Your task to perform on an android device: Go to network settings Image 0: 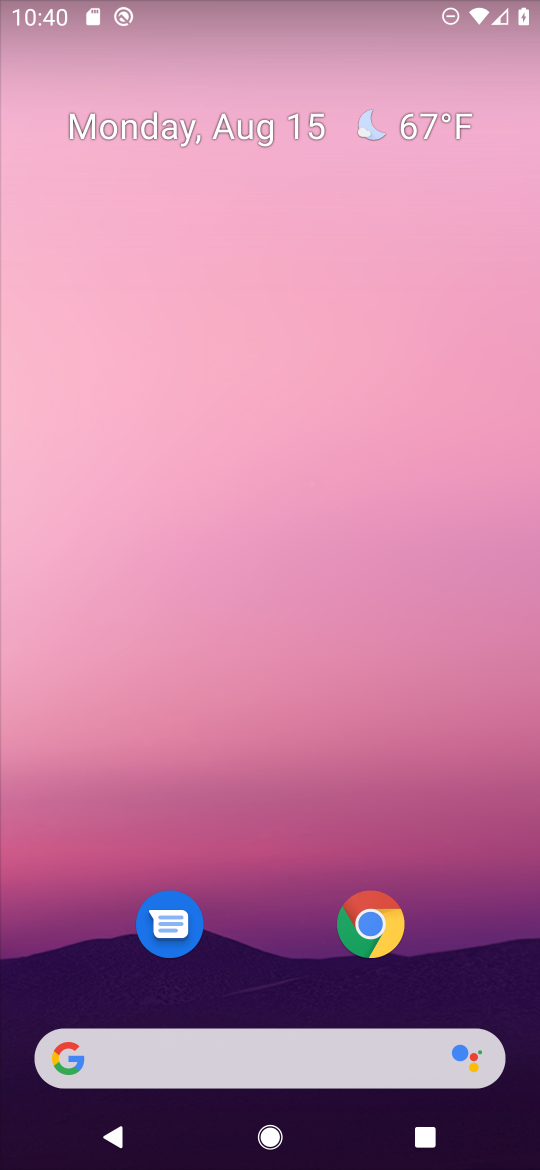
Step 0: drag from (490, 988) to (410, 103)
Your task to perform on an android device: Go to network settings Image 1: 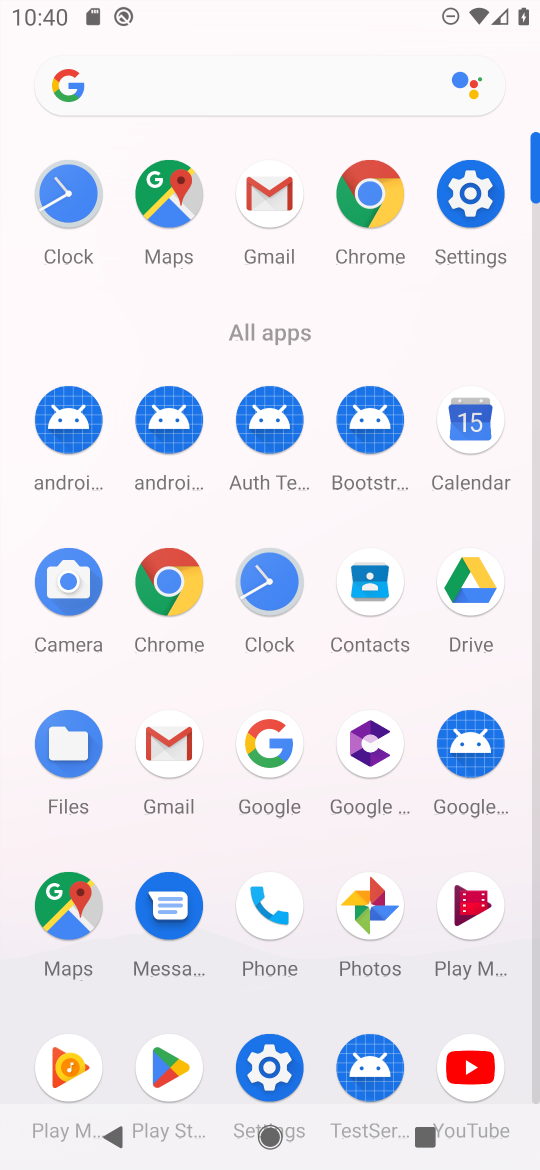
Step 1: click (271, 1067)
Your task to perform on an android device: Go to network settings Image 2: 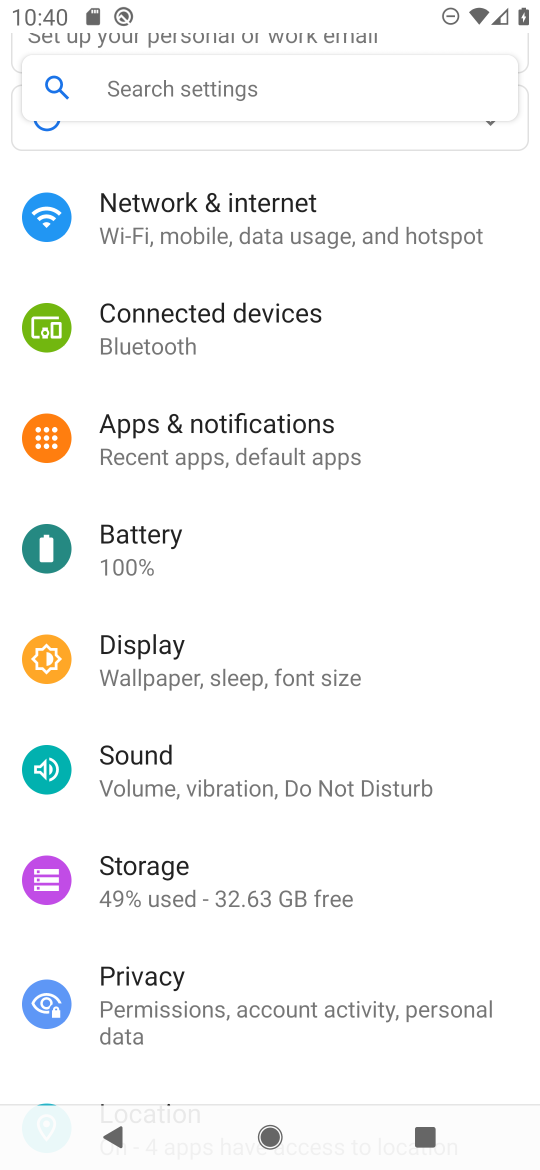
Step 2: click (179, 216)
Your task to perform on an android device: Go to network settings Image 3: 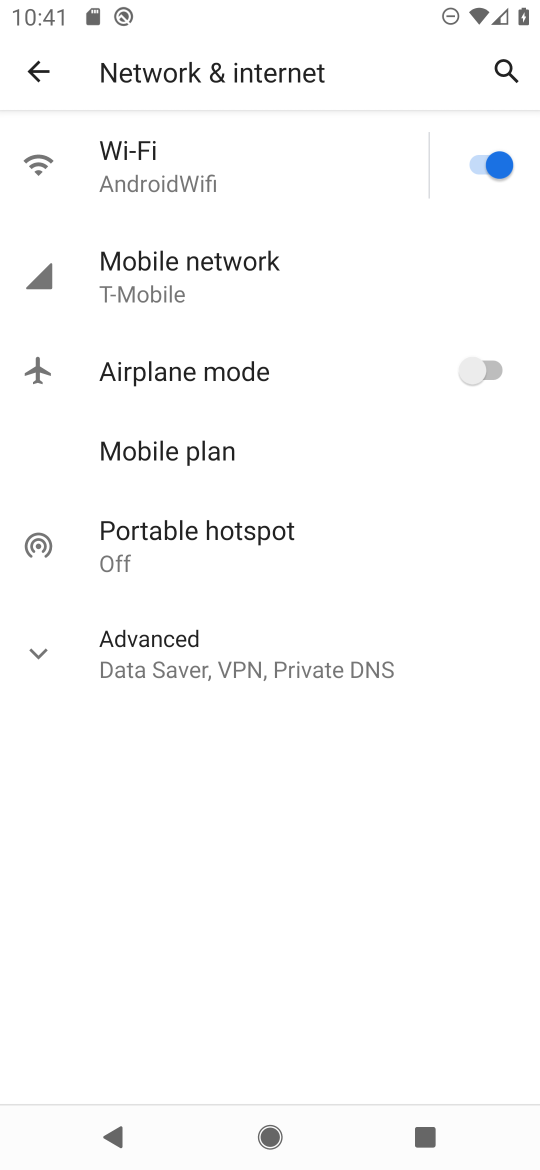
Step 3: click (176, 279)
Your task to perform on an android device: Go to network settings Image 4: 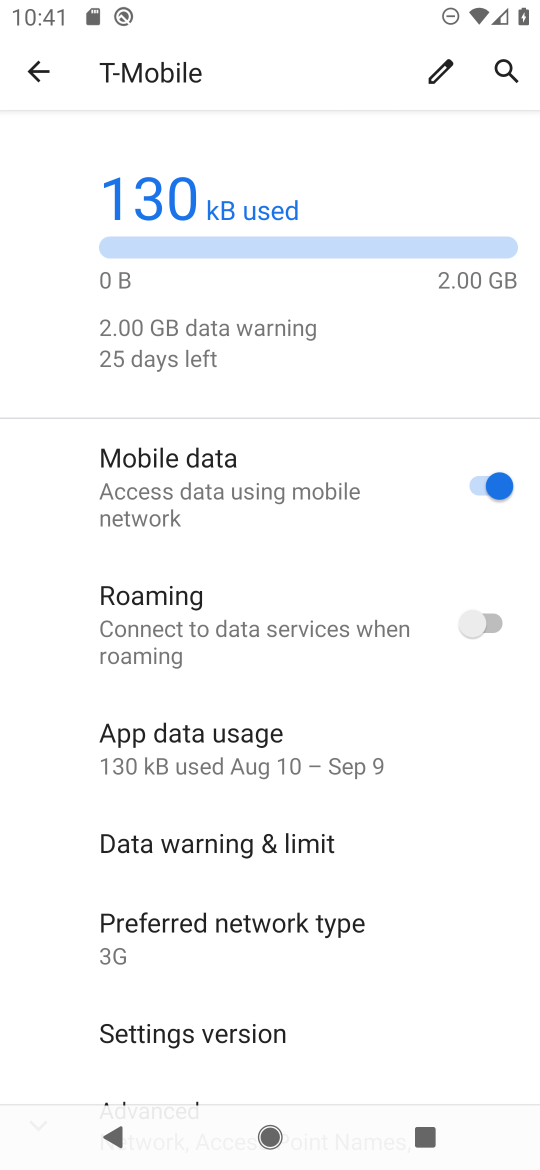
Step 4: task complete